Your task to perform on an android device: Add "usb-c to usb-b" to the cart on target.com Image 0: 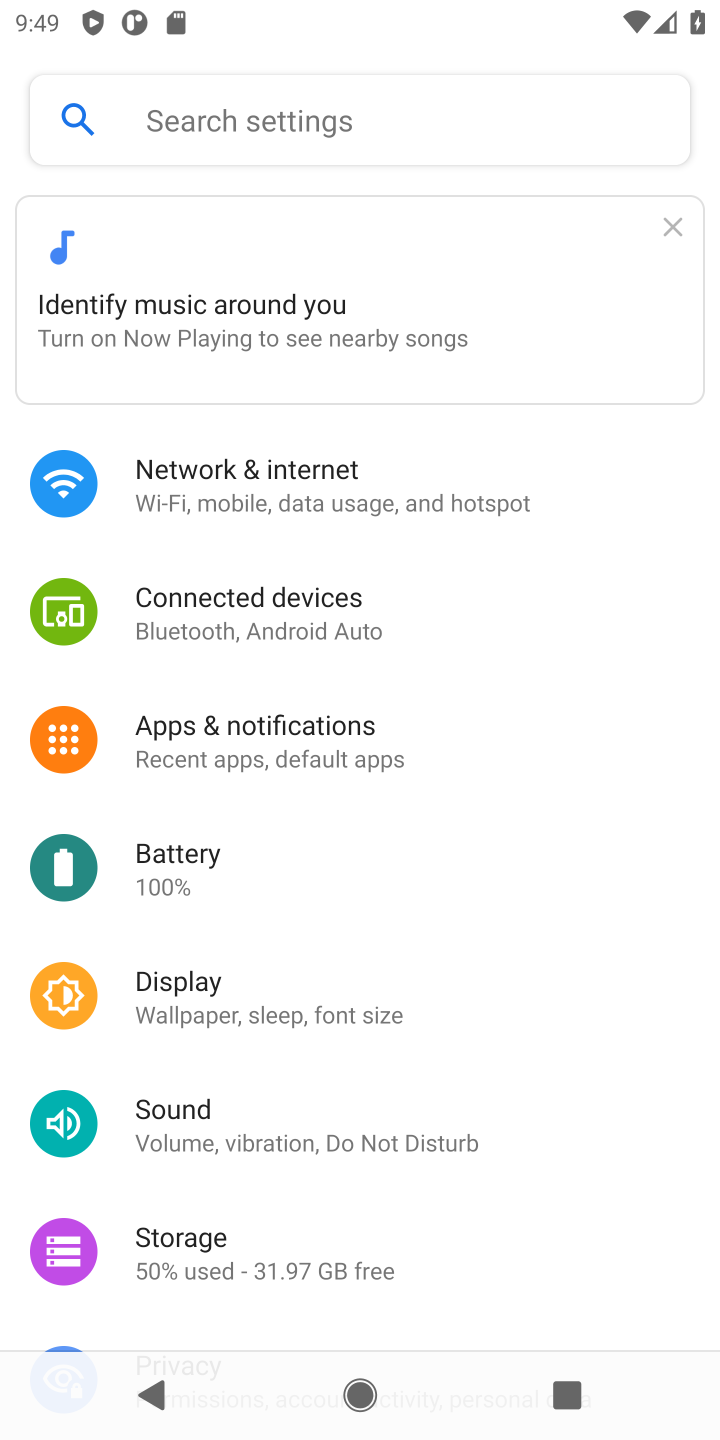
Step 0: press home button
Your task to perform on an android device: Add "usb-c to usb-b" to the cart on target.com Image 1: 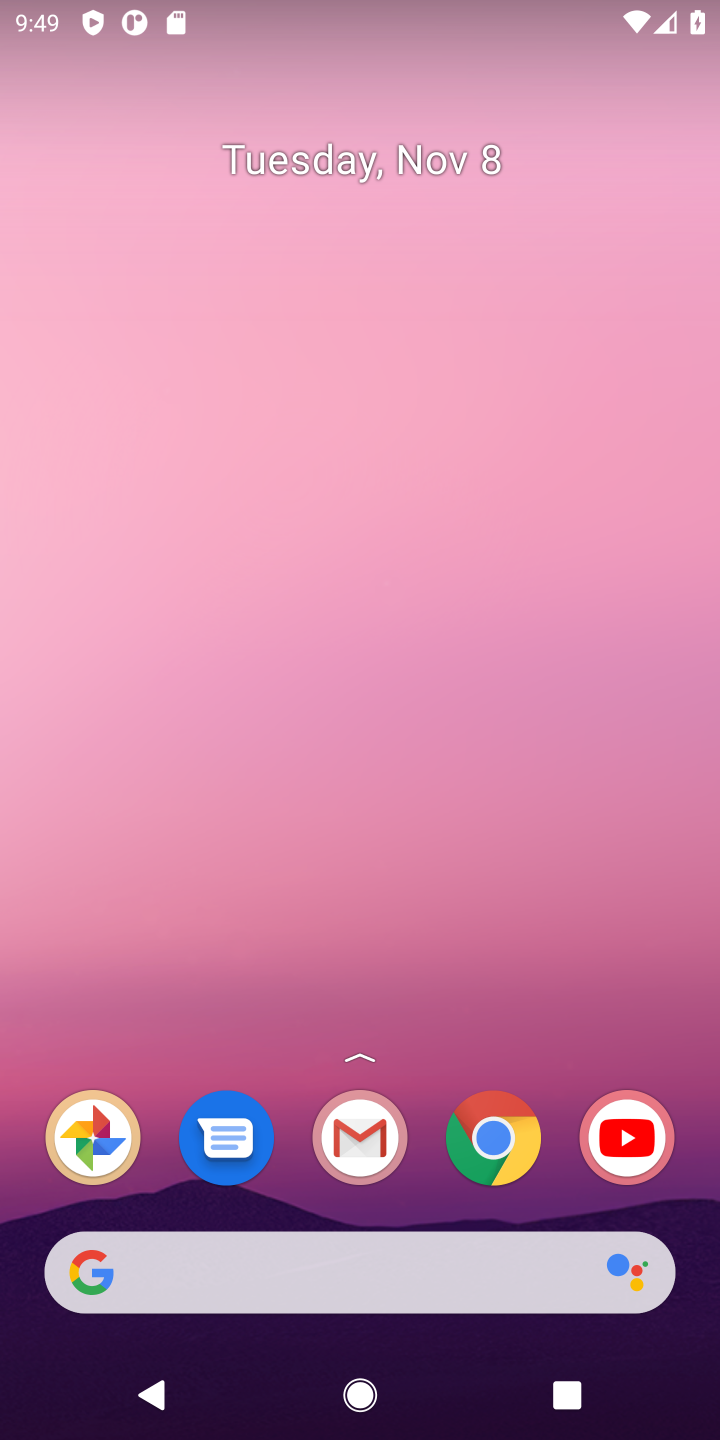
Step 1: click (502, 1145)
Your task to perform on an android device: Add "usb-c to usb-b" to the cart on target.com Image 2: 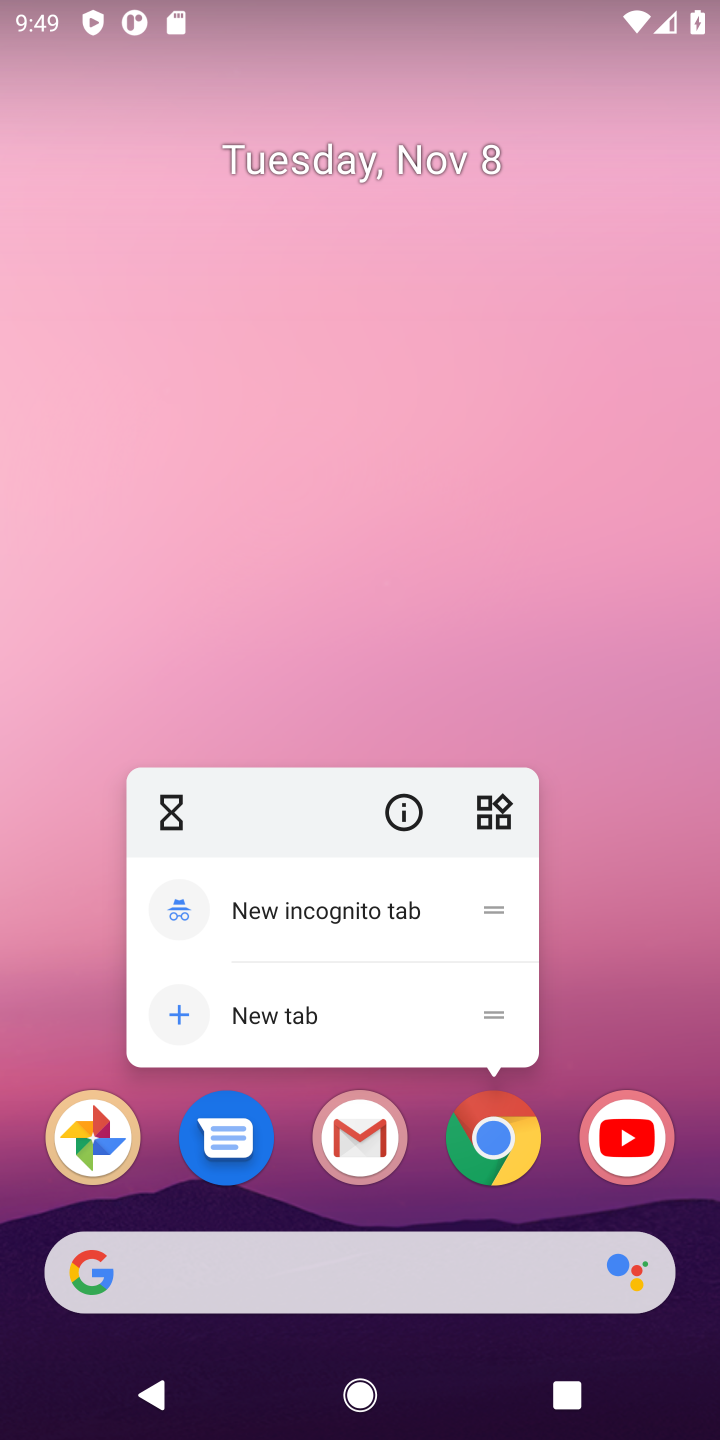
Step 2: click (500, 1152)
Your task to perform on an android device: Add "usb-c to usb-b" to the cart on target.com Image 3: 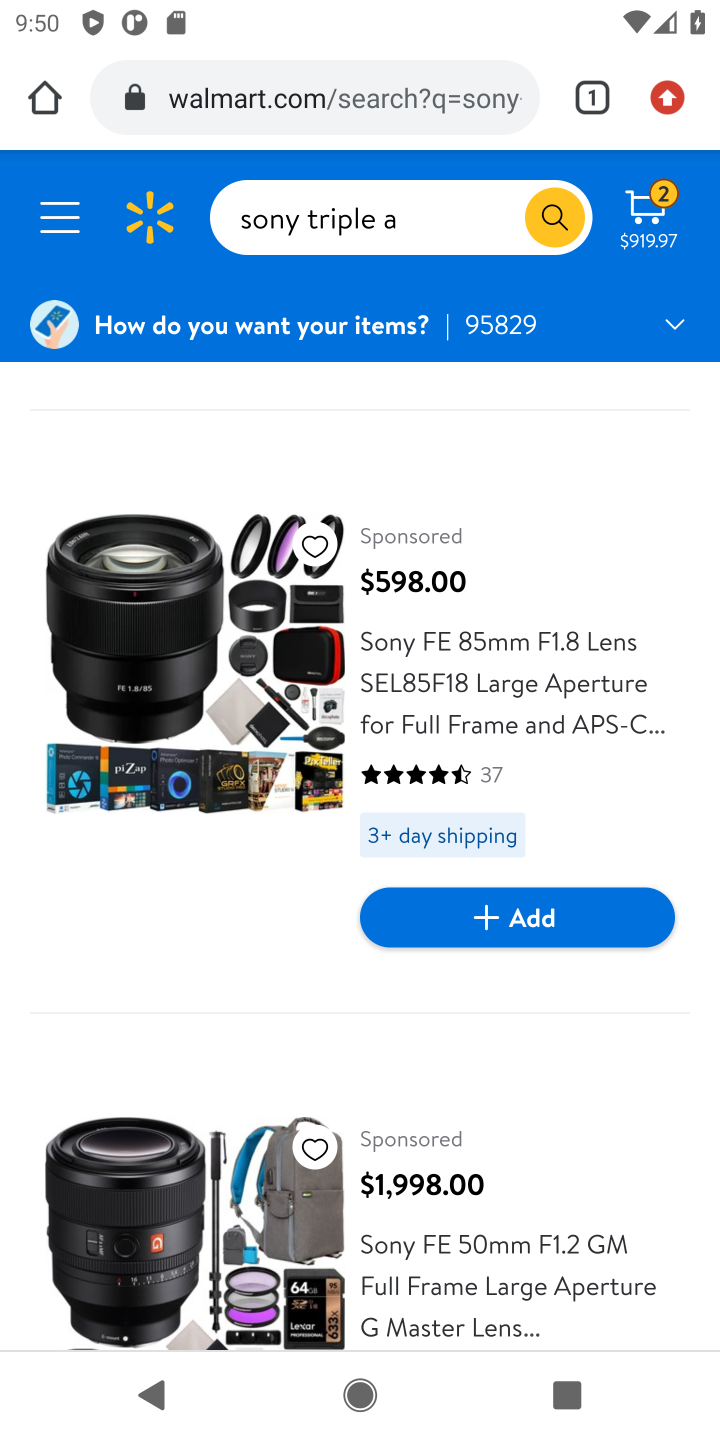
Step 3: click (381, 77)
Your task to perform on an android device: Add "usb-c to usb-b" to the cart on target.com Image 4: 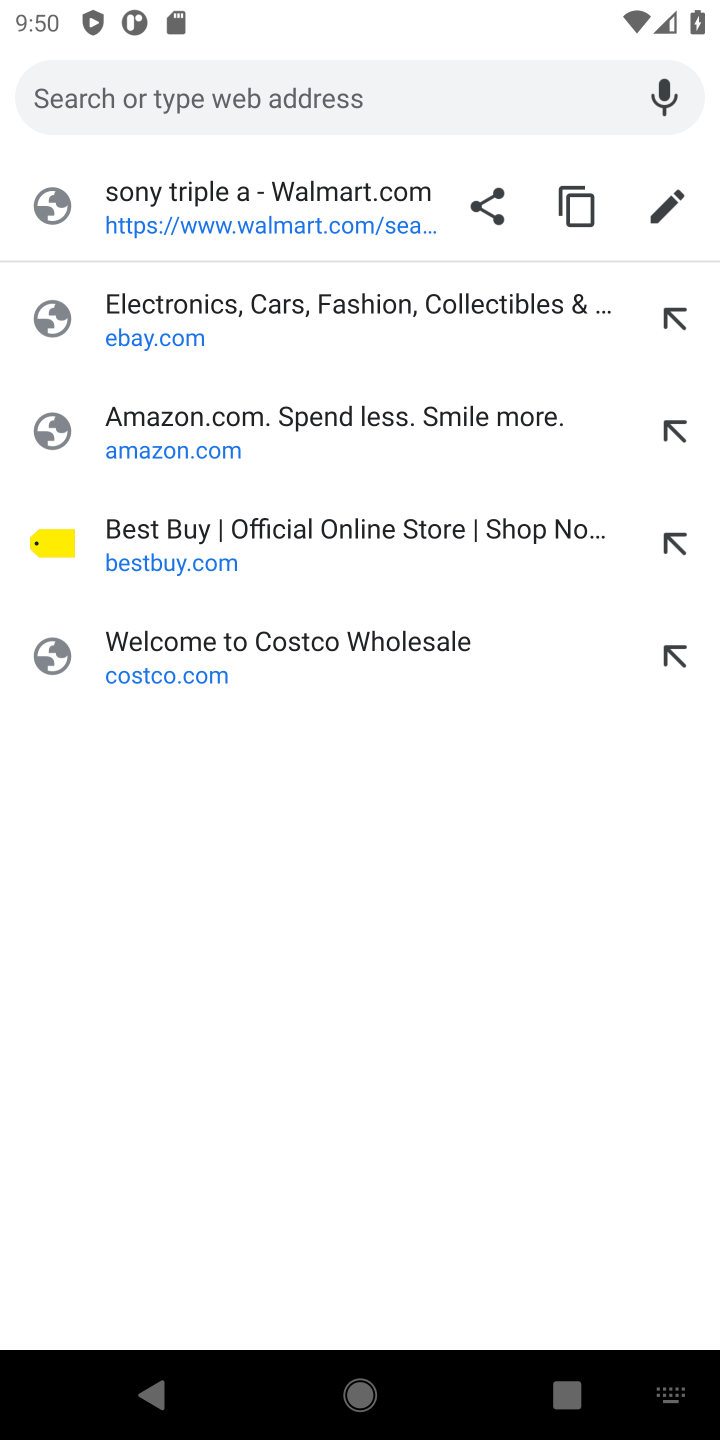
Step 4: type "target.com"
Your task to perform on an android device: Add "usb-c to usb-b" to the cart on target.com Image 5: 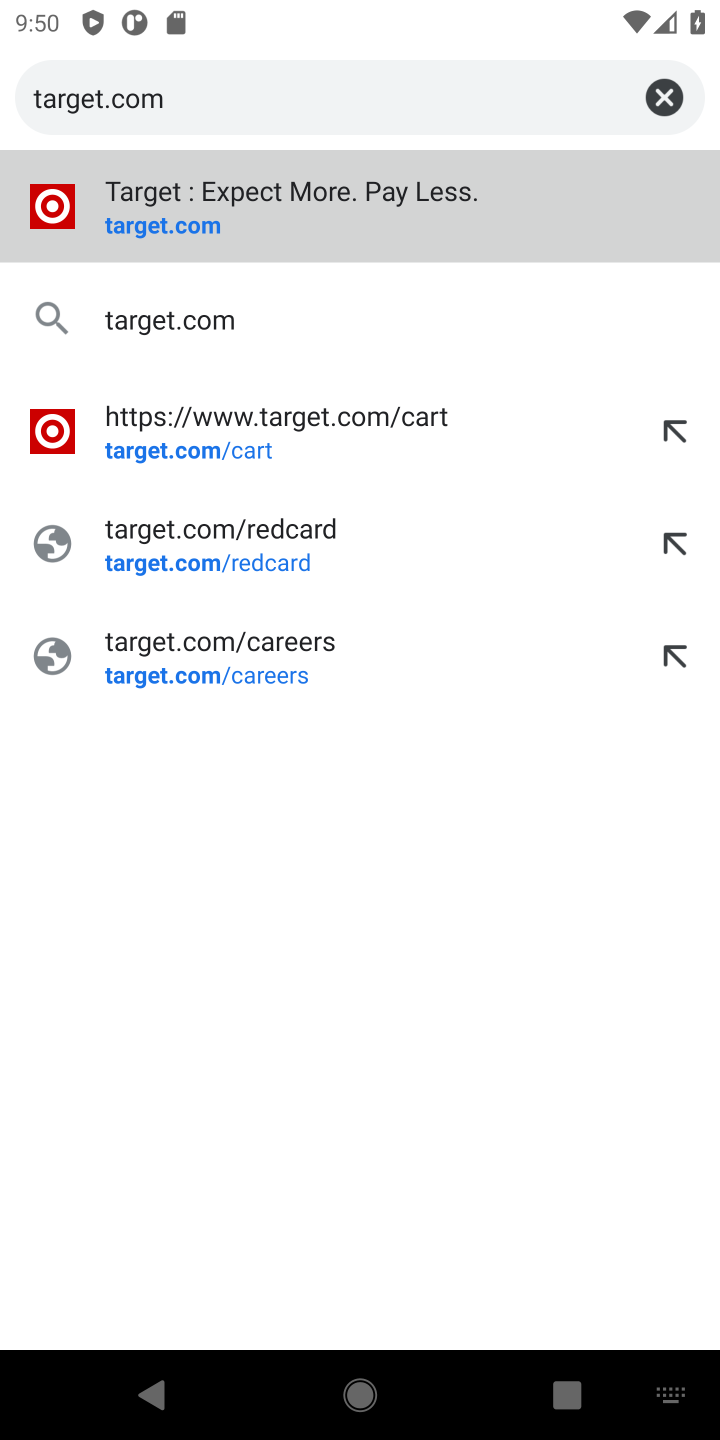
Step 5: press enter
Your task to perform on an android device: Add "usb-c to usb-b" to the cart on target.com Image 6: 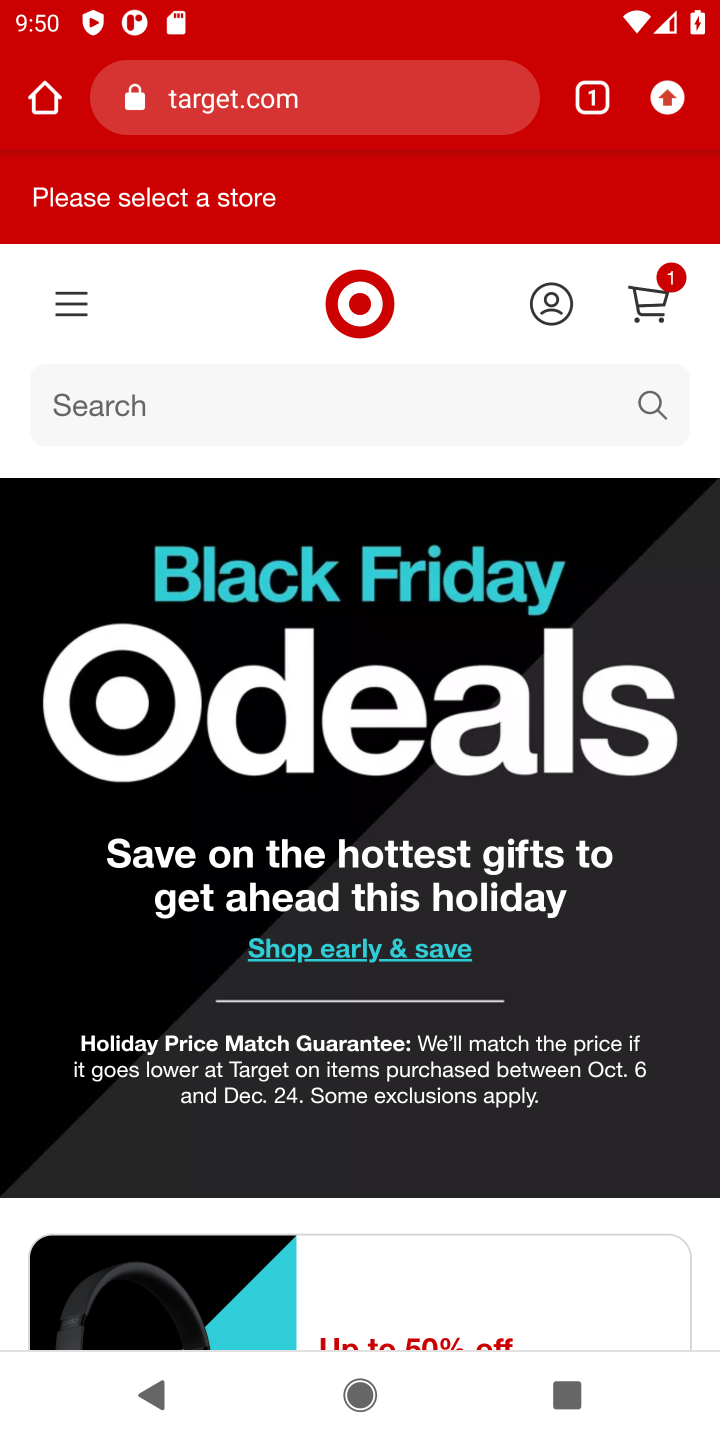
Step 6: click (255, 391)
Your task to perform on an android device: Add "usb-c to usb-b" to the cart on target.com Image 7: 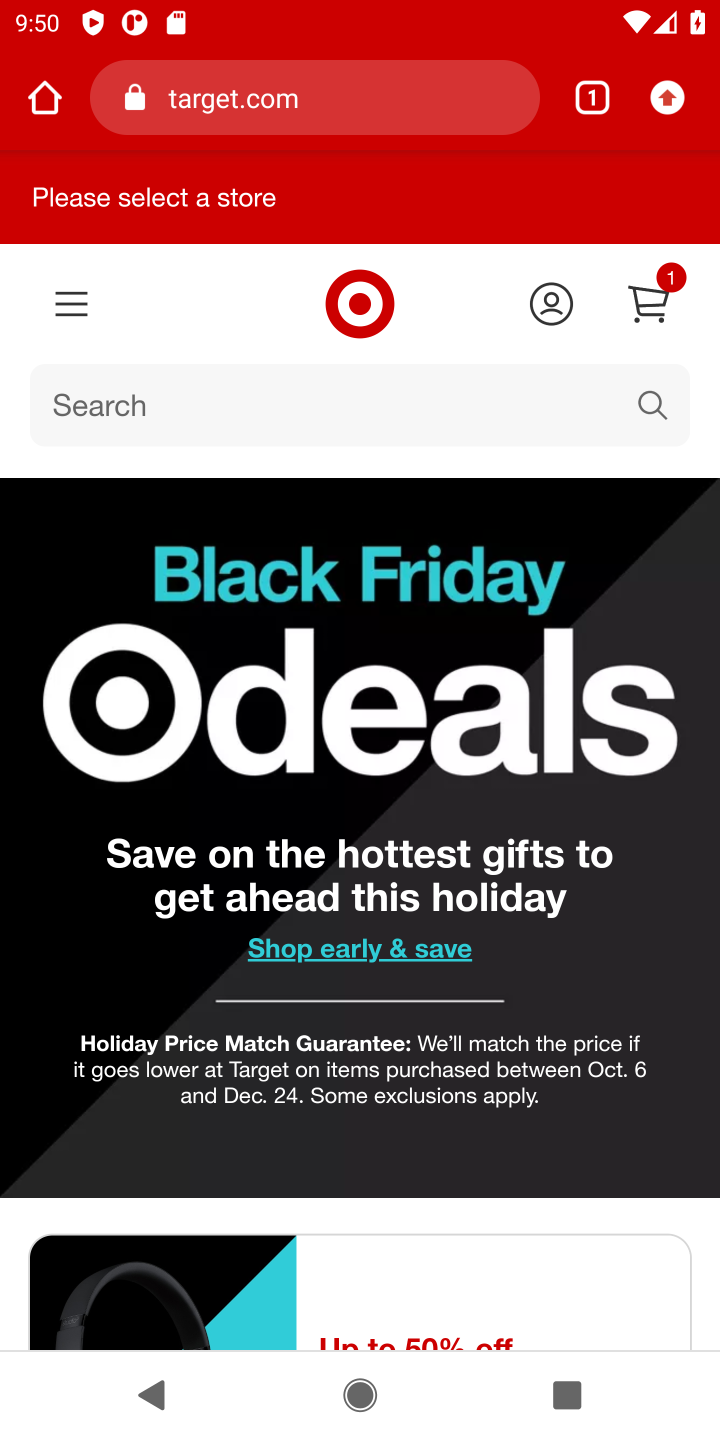
Step 7: click (90, 396)
Your task to perform on an android device: Add "usb-c to usb-b" to the cart on target.com Image 8: 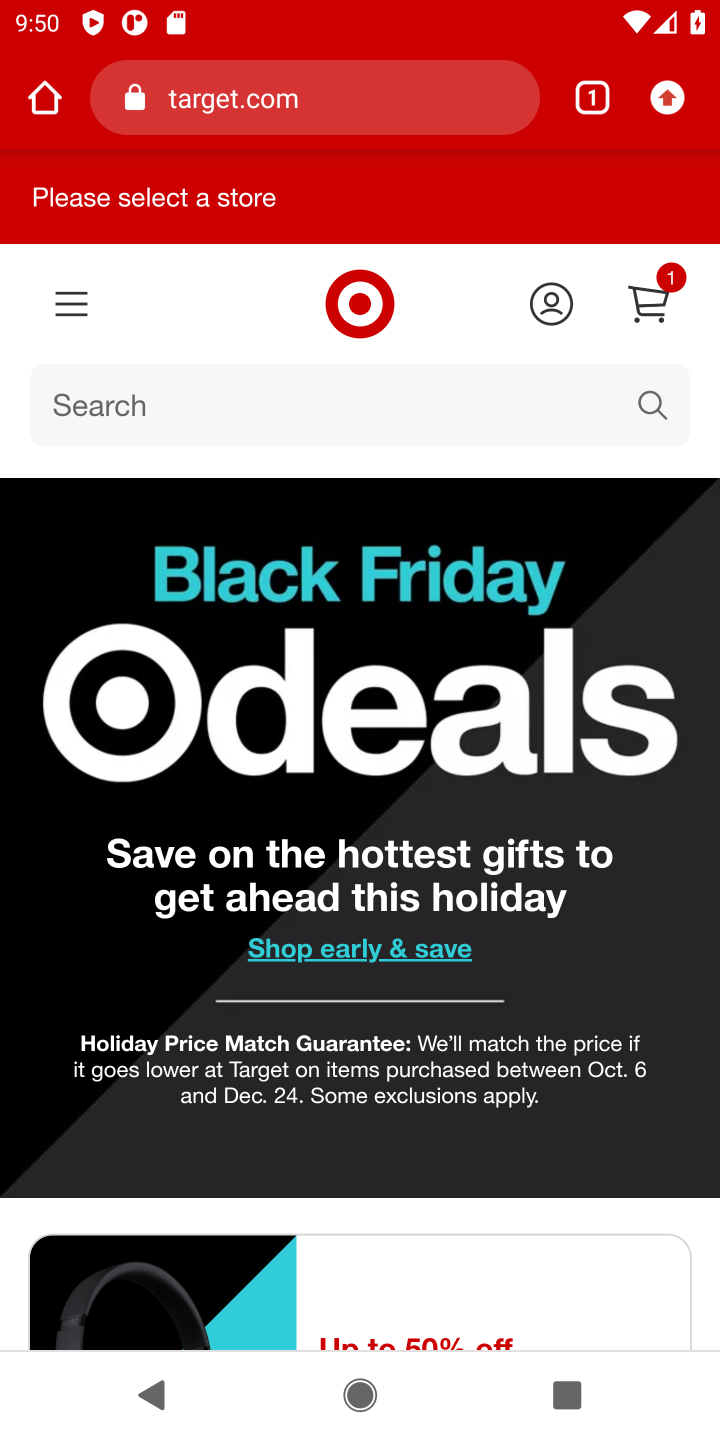
Step 8: click (469, 386)
Your task to perform on an android device: Add "usb-c to usb-b" to the cart on target.com Image 9: 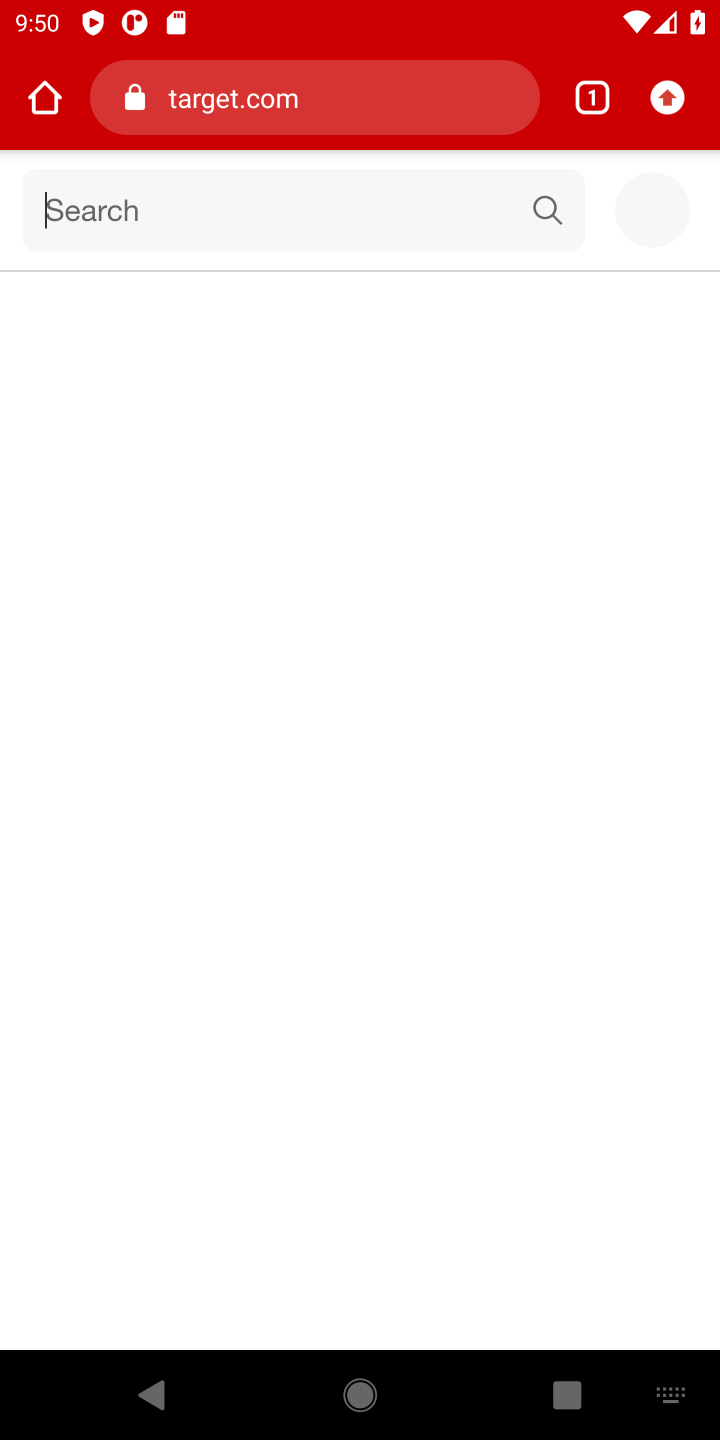
Step 9: click (497, 393)
Your task to perform on an android device: Add "usb-c to usb-b" to the cart on target.com Image 10: 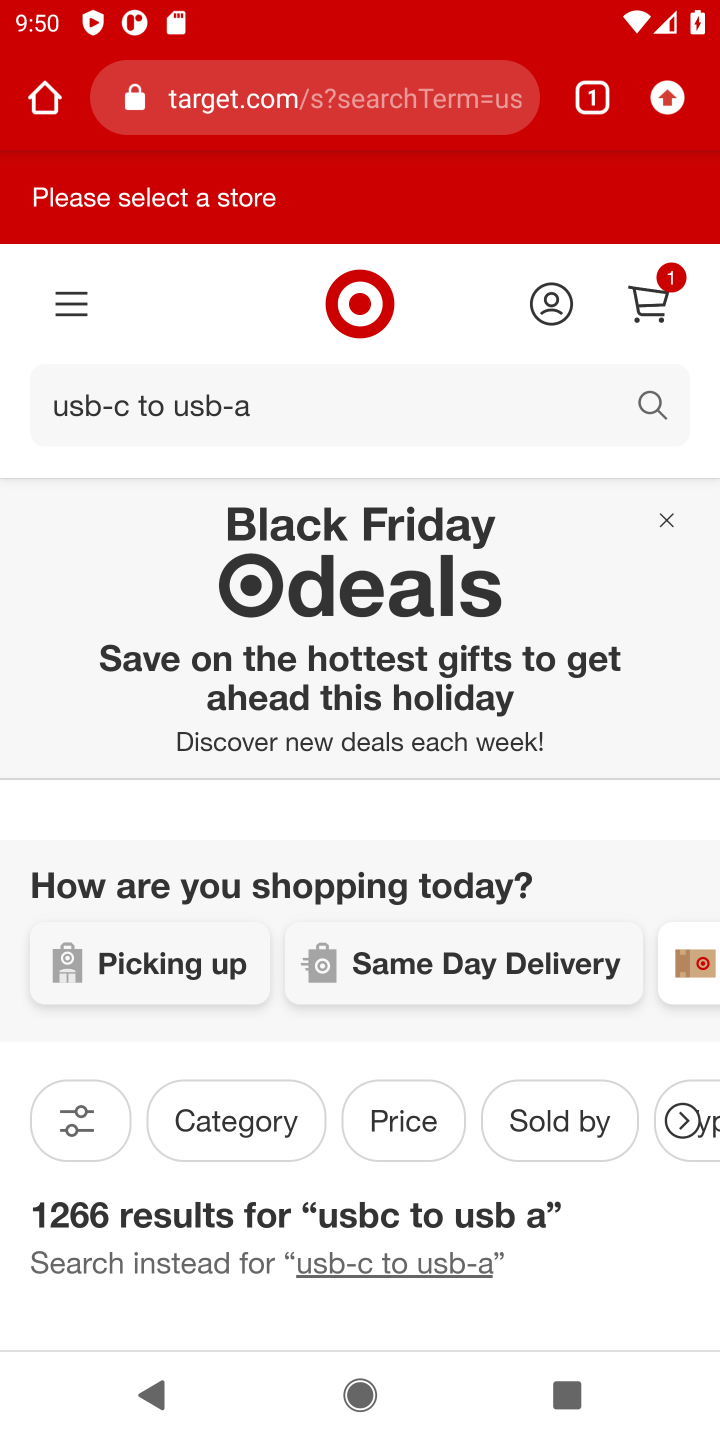
Step 10: click (299, 403)
Your task to perform on an android device: Add "usb-c to usb-b" to the cart on target.com Image 11: 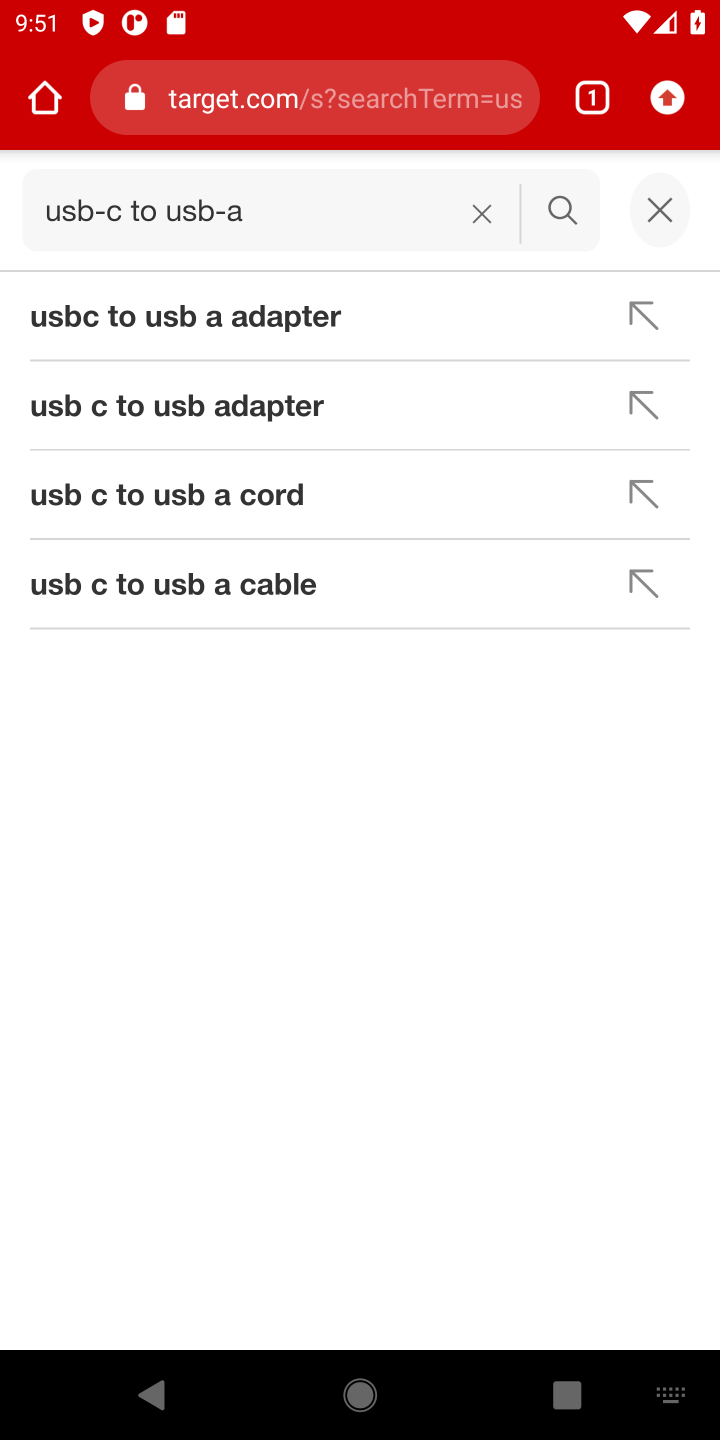
Step 11: click (482, 197)
Your task to perform on an android device: Add "usb-c to usb-b" to the cart on target.com Image 12: 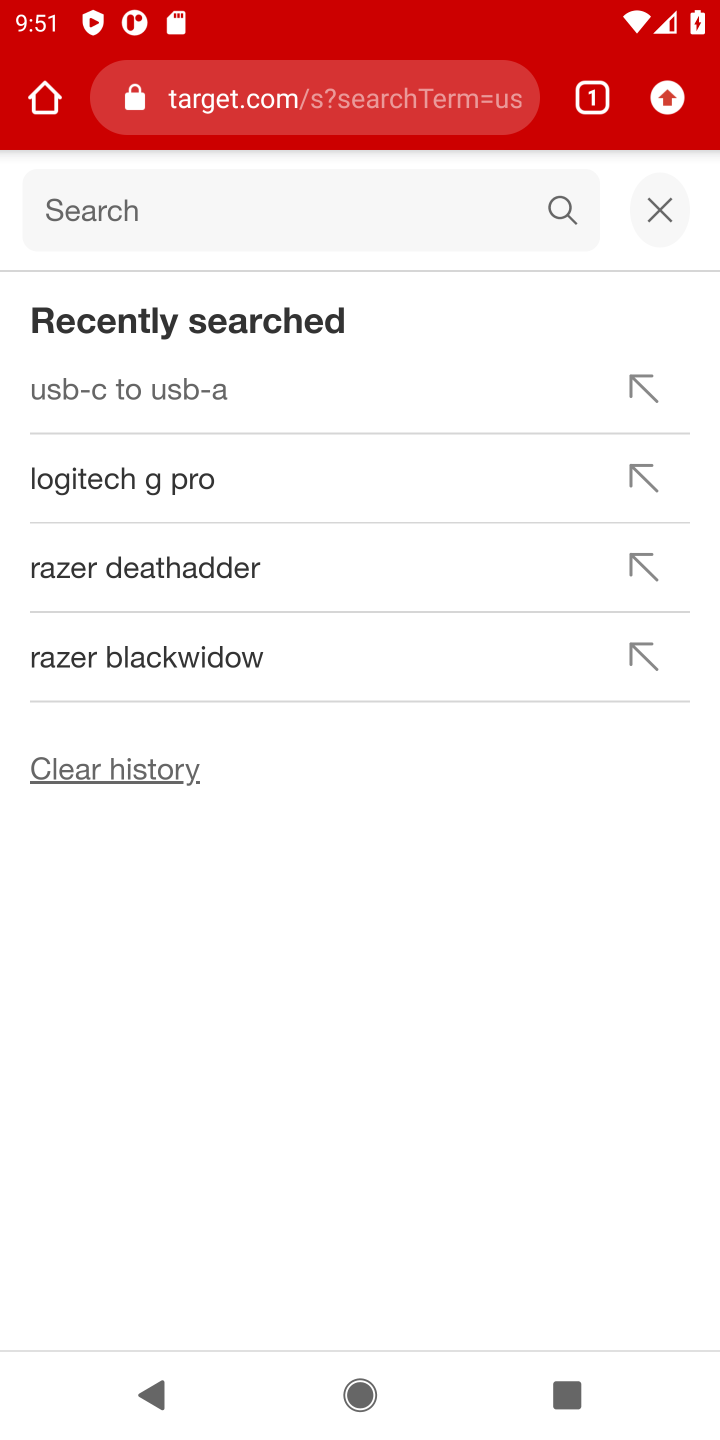
Step 12: click (225, 210)
Your task to perform on an android device: Add "usb-c to usb-b" to the cart on target.com Image 13: 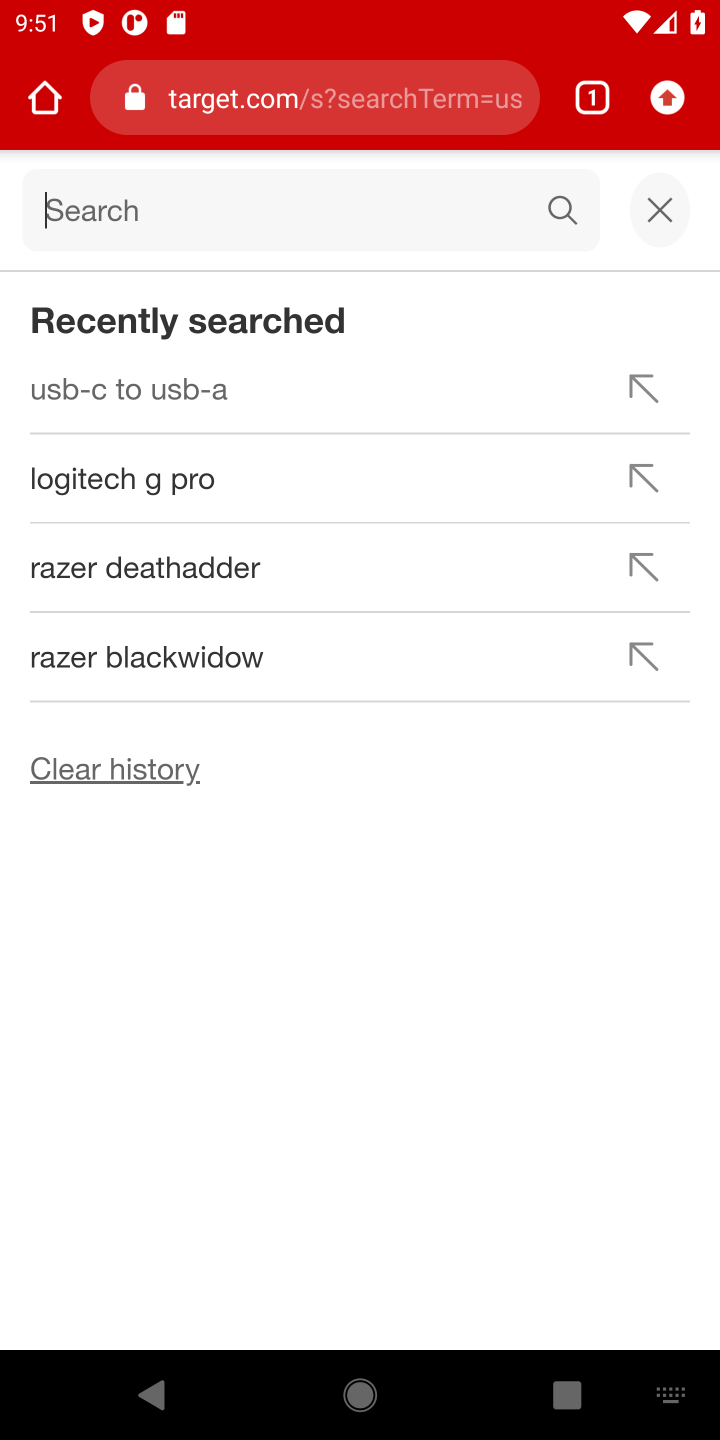
Step 13: type "usb-c to usb-b"
Your task to perform on an android device: Add "usb-c to usb-b" to the cart on target.com Image 14: 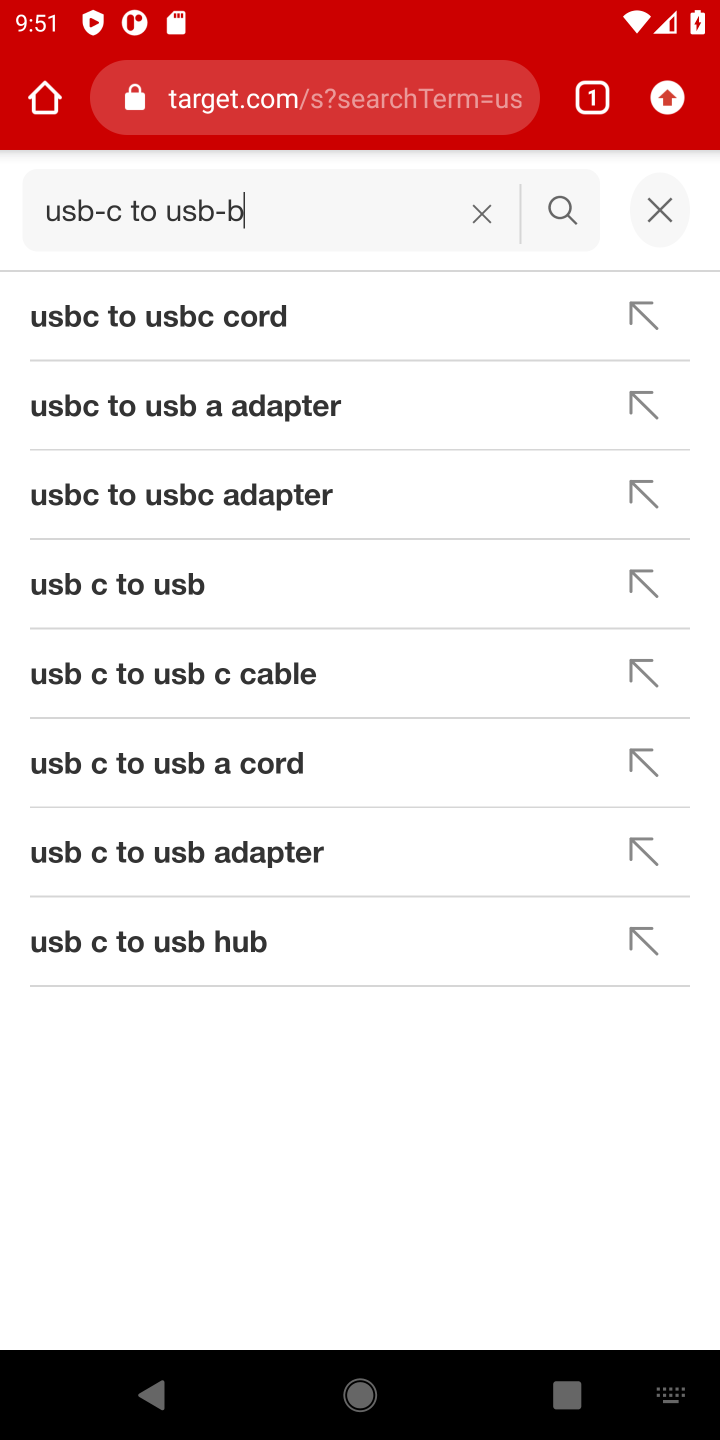
Step 14: press enter
Your task to perform on an android device: Add "usb-c to usb-b" to the cart on target.com Image 15: 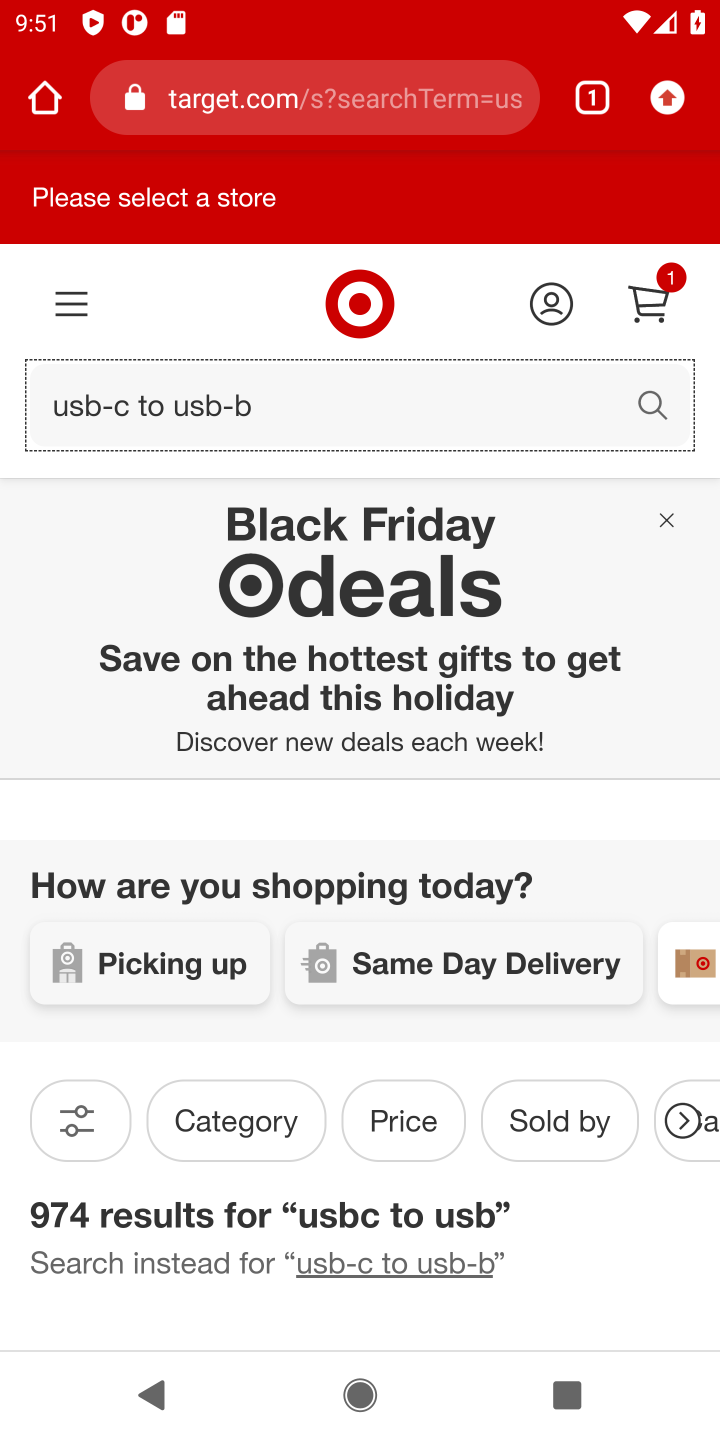
Step 15: drag from (311, 1163) to (551, 329)
Your task to perform on an android device: Add "usb-c to usb-b" to the cart on target.com Image 16: 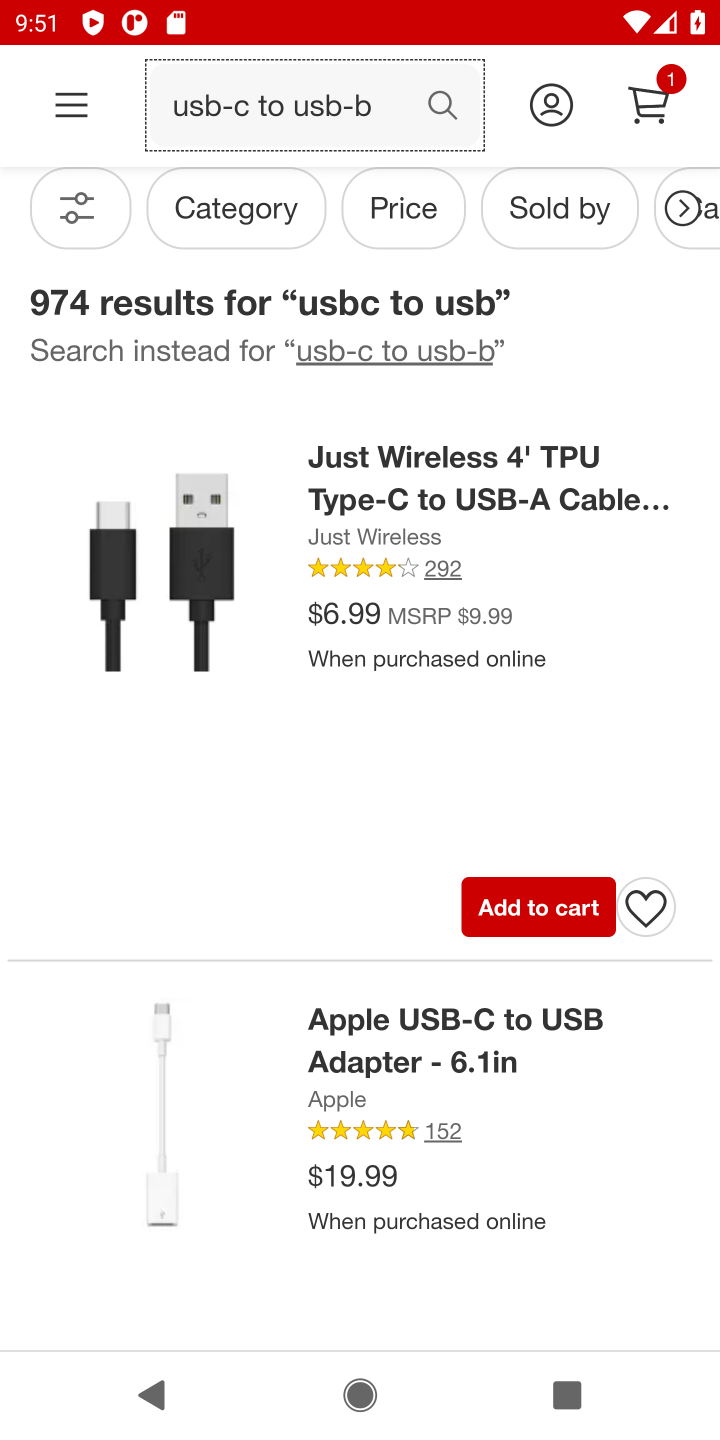
Step 16: click (556, 898)
Your task to perform on an android device: Add "usb-c to usb-b" to the cart on target.com Image 17: 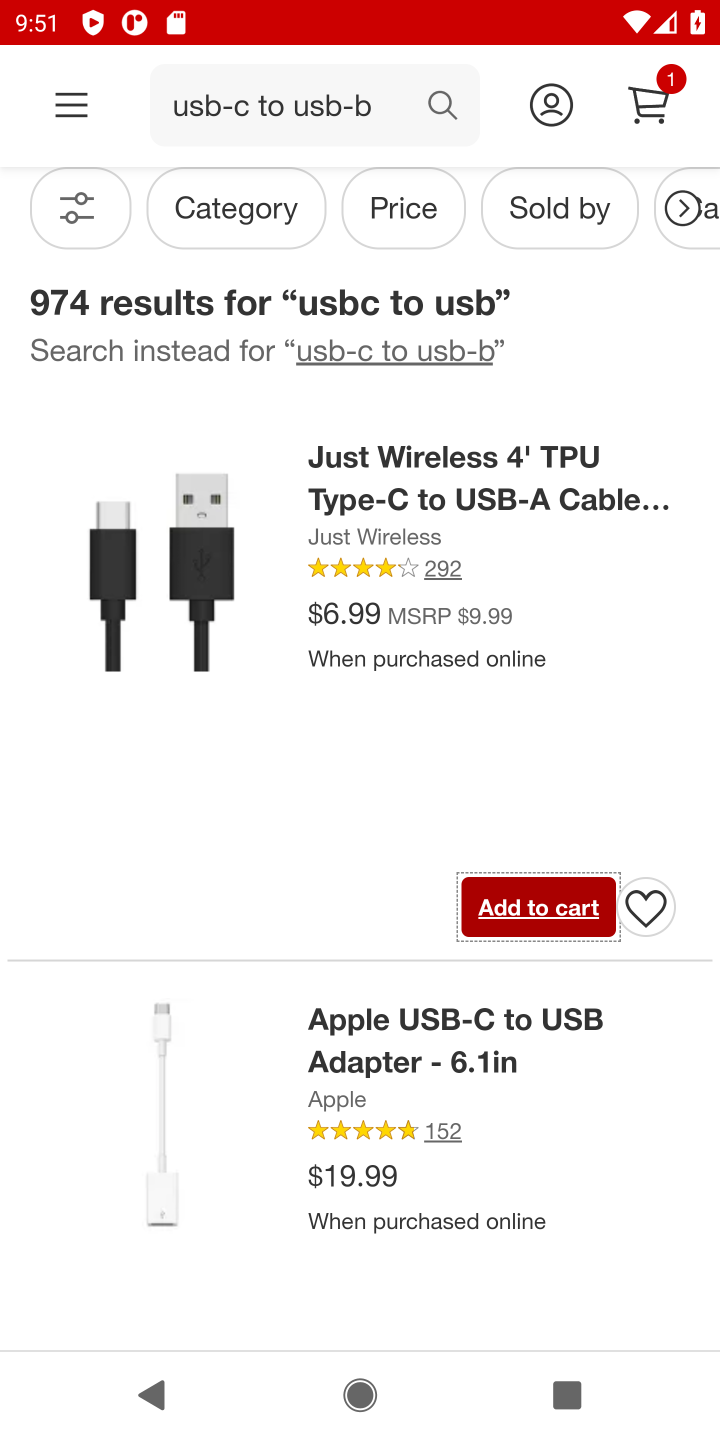
Step 17: click (527, 901)
Your task to perform on an android device: Add "usb-c to usb-b" to the cart on target.com Image 18: 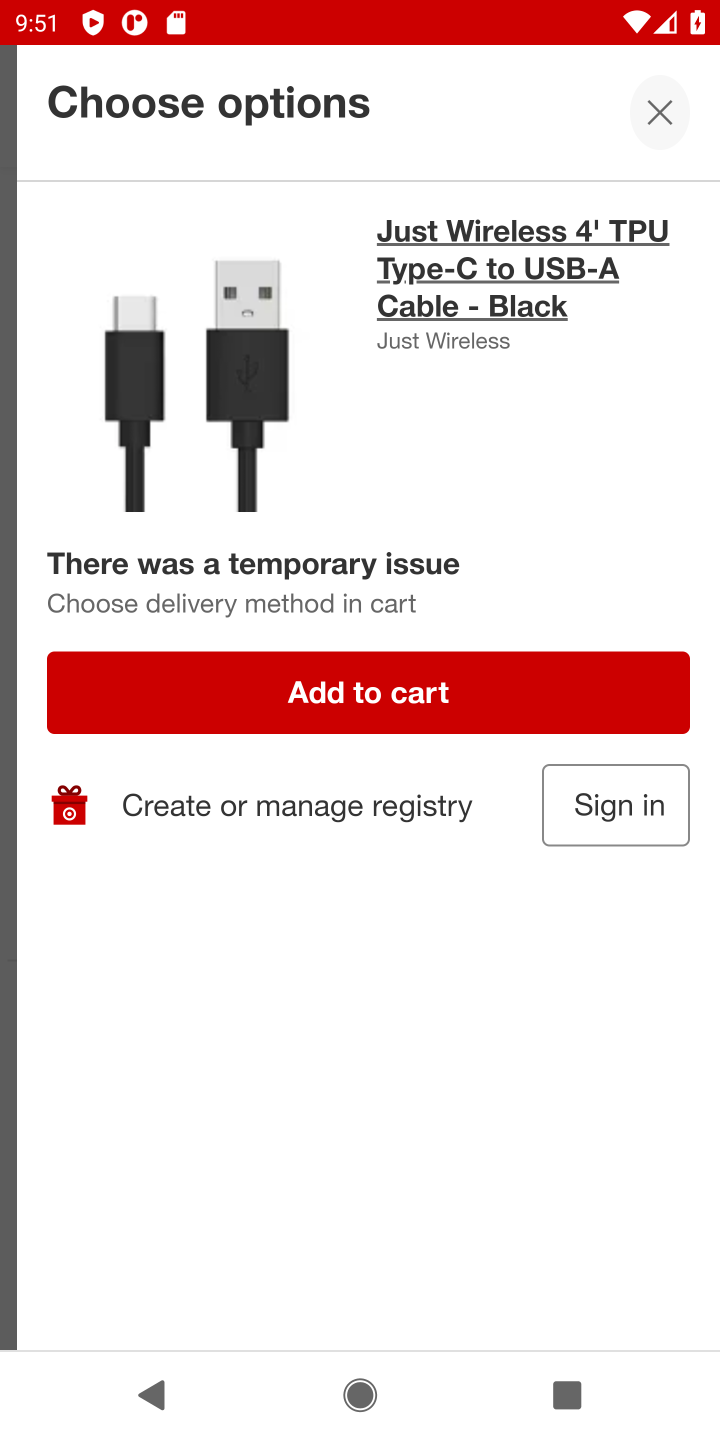
Step 18: click (360, 693)
Your task to perform on an android device: Add "usb-c to usb-b" to the cart on target.com Image 19: 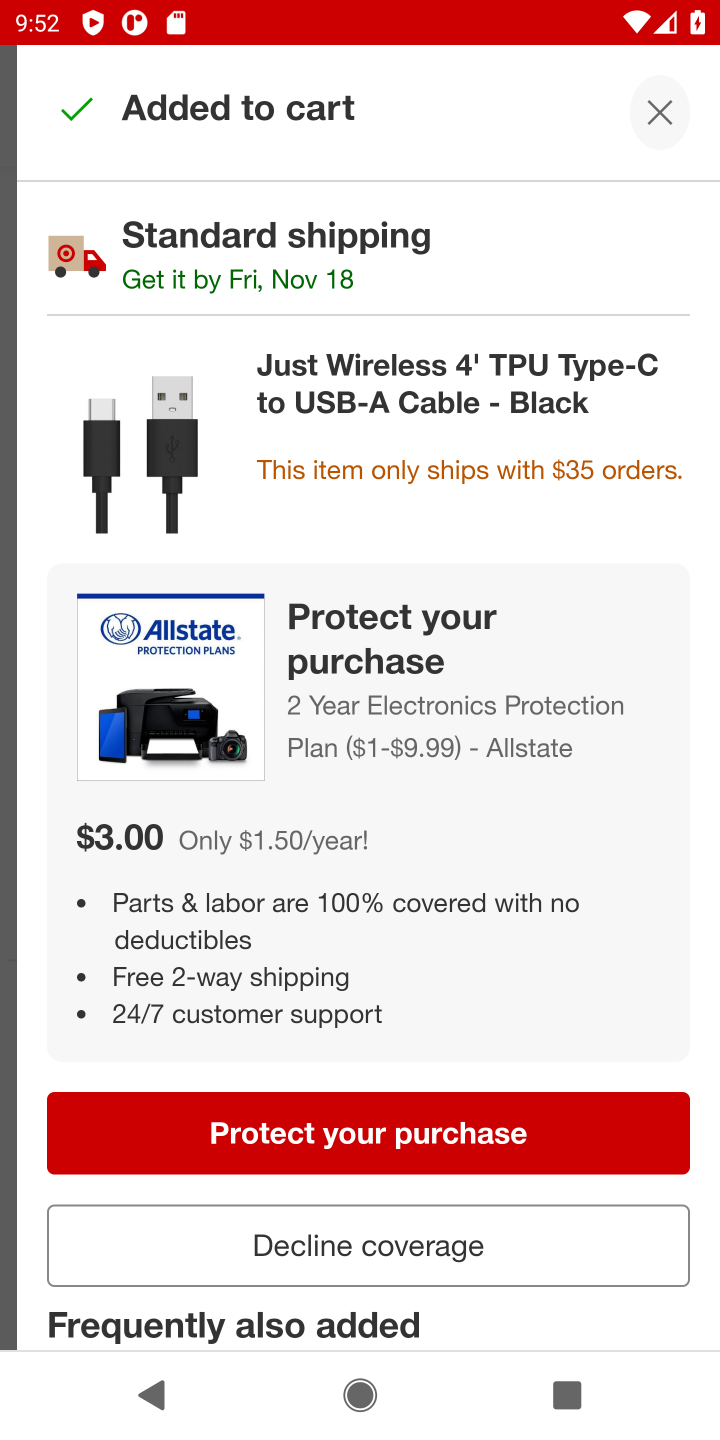
Step 19: click (390, 1228)
Your task to perform on an android device: Add "usb-c to usb-b" to the cart on target.com Image 20: 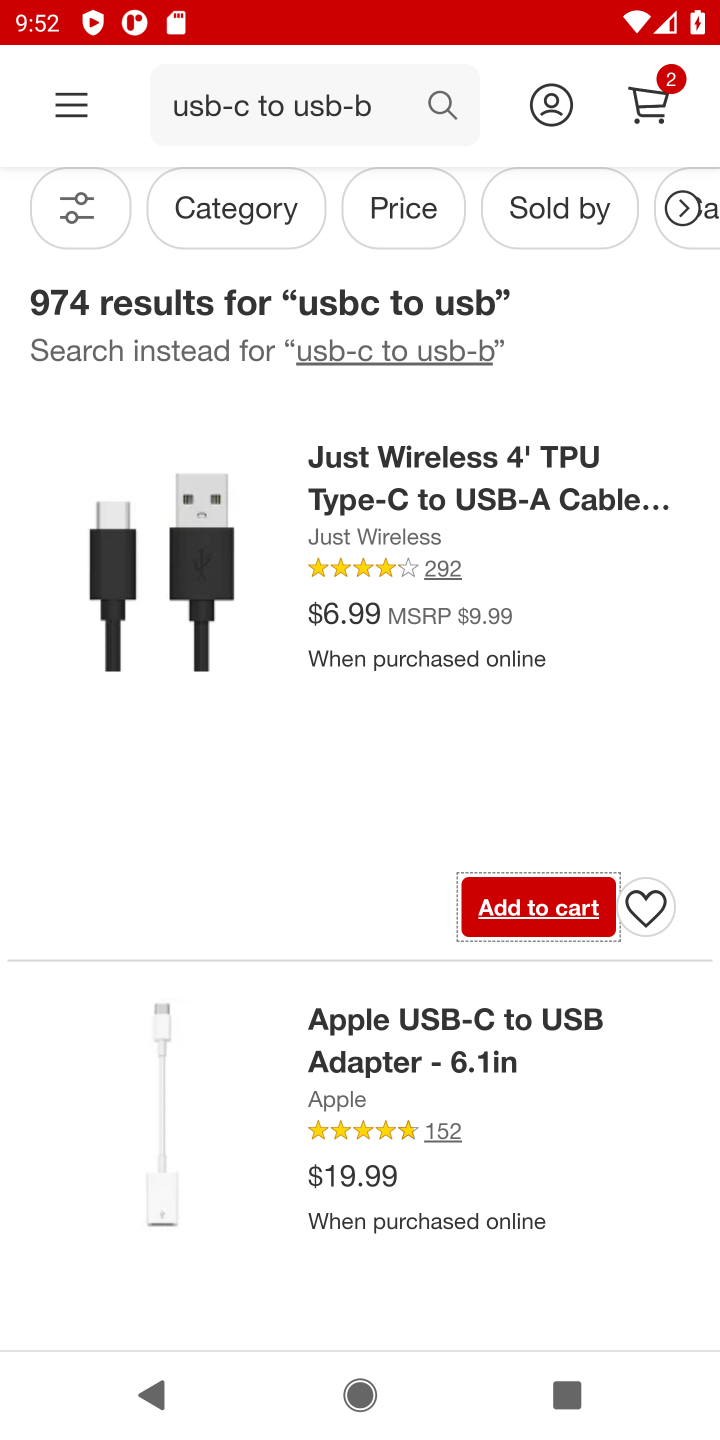
Step 20: click (655, 87)
Your task to perform on an android device: Add "usb-c to usb-b" to the cart on target.com Image 21: 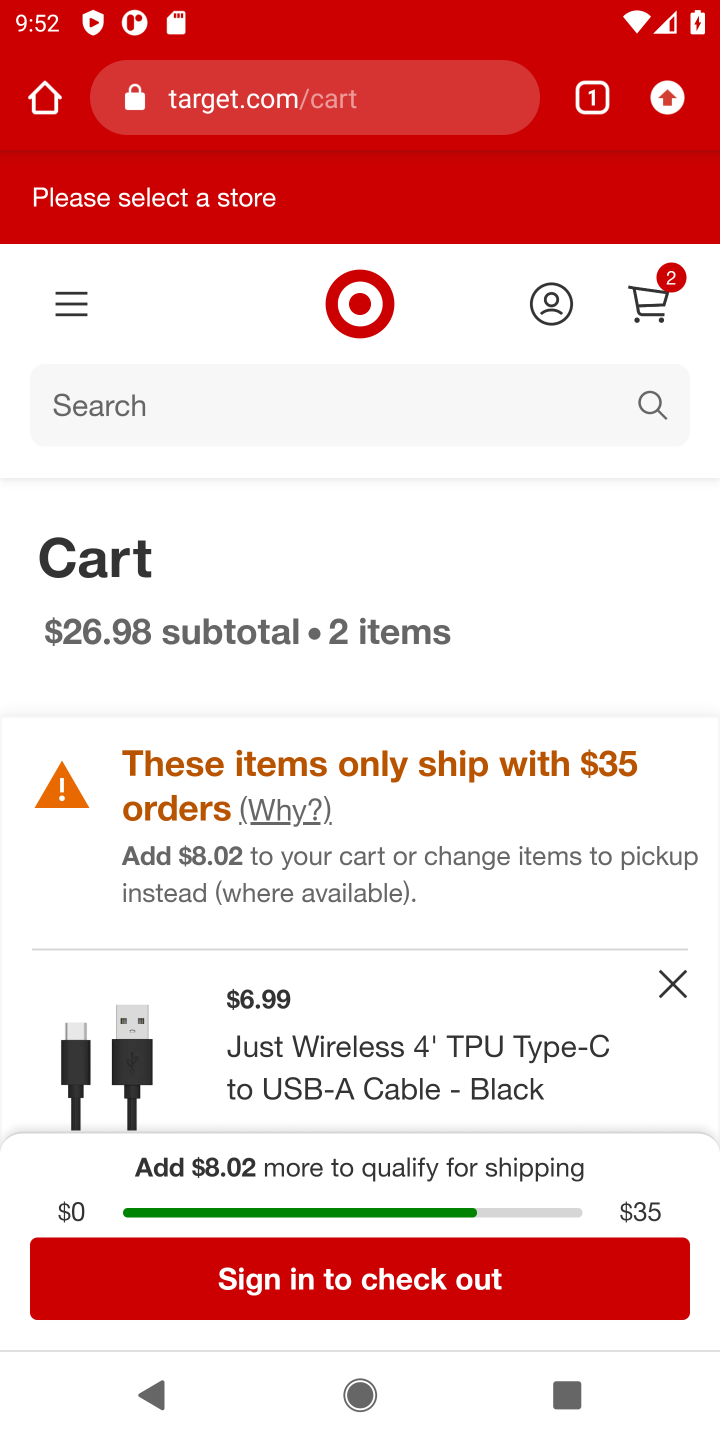
Step 21: drag from (388, 1048) to (604, 334)
Your task to perform on an android device: Add "usb-c to usb-b" to the cart on target.com Image 22: 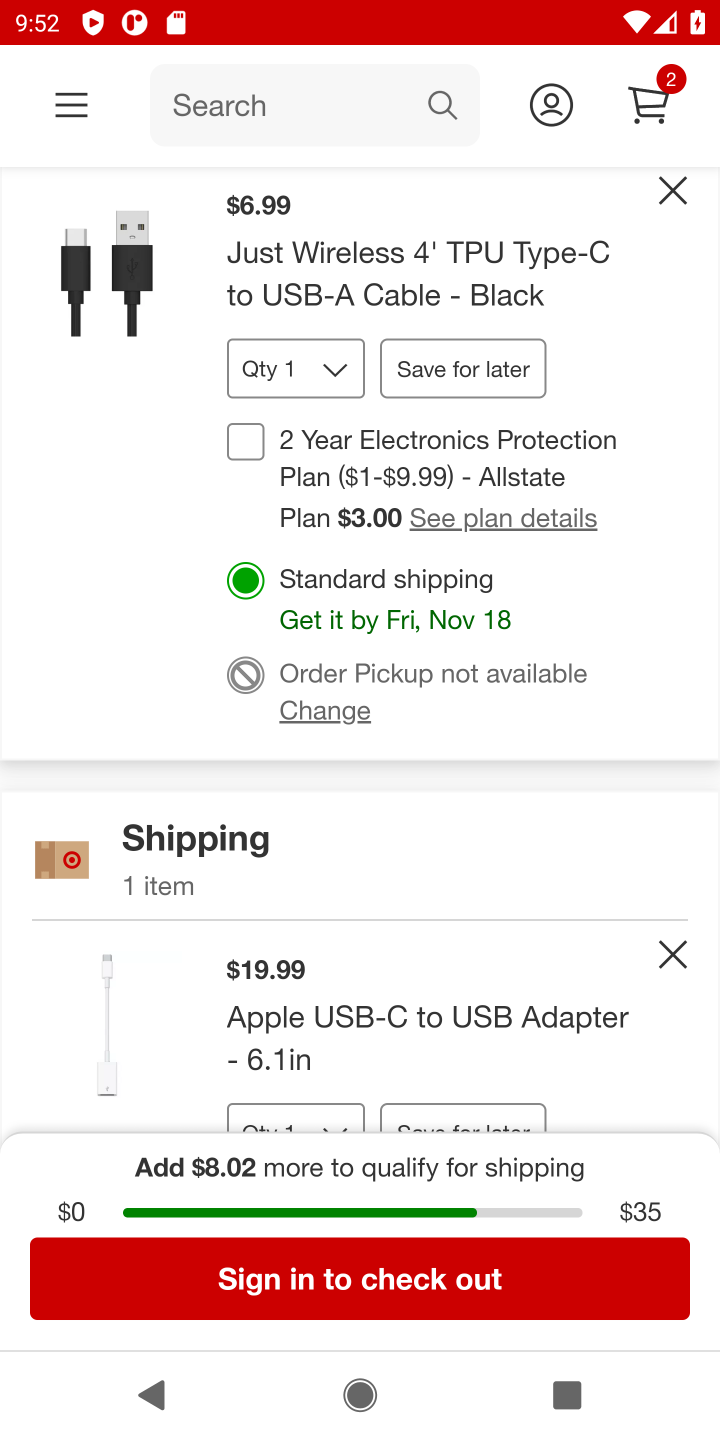
Step 22: drag from (465, 988) to (561, 120)
Your task to perform on an android device: Add "usb-c to usb-b" to the cart on target.com Image 23: 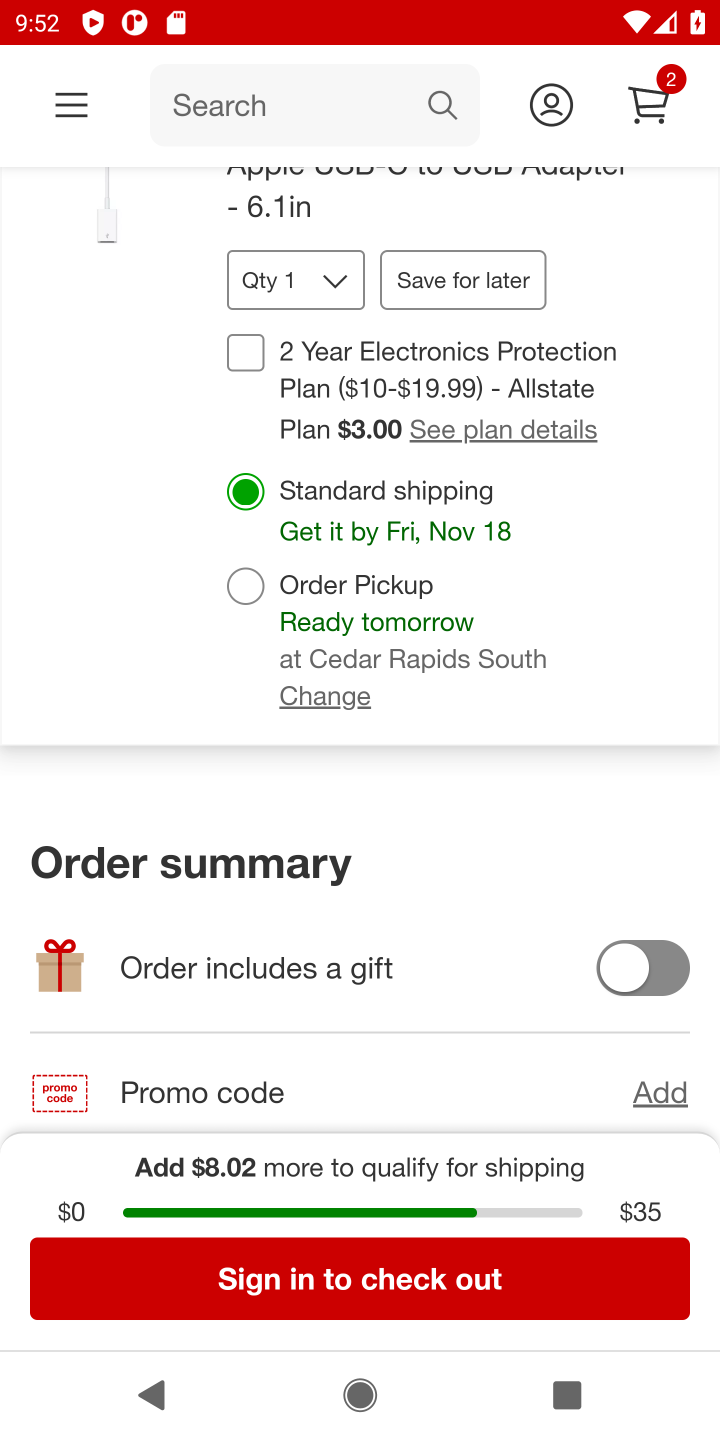
Step 23: drag from (625, 221) to (557, 975)
Your task to perform on an android device: Add "usb-c to usb-b" to the cart on target.com Image 24: 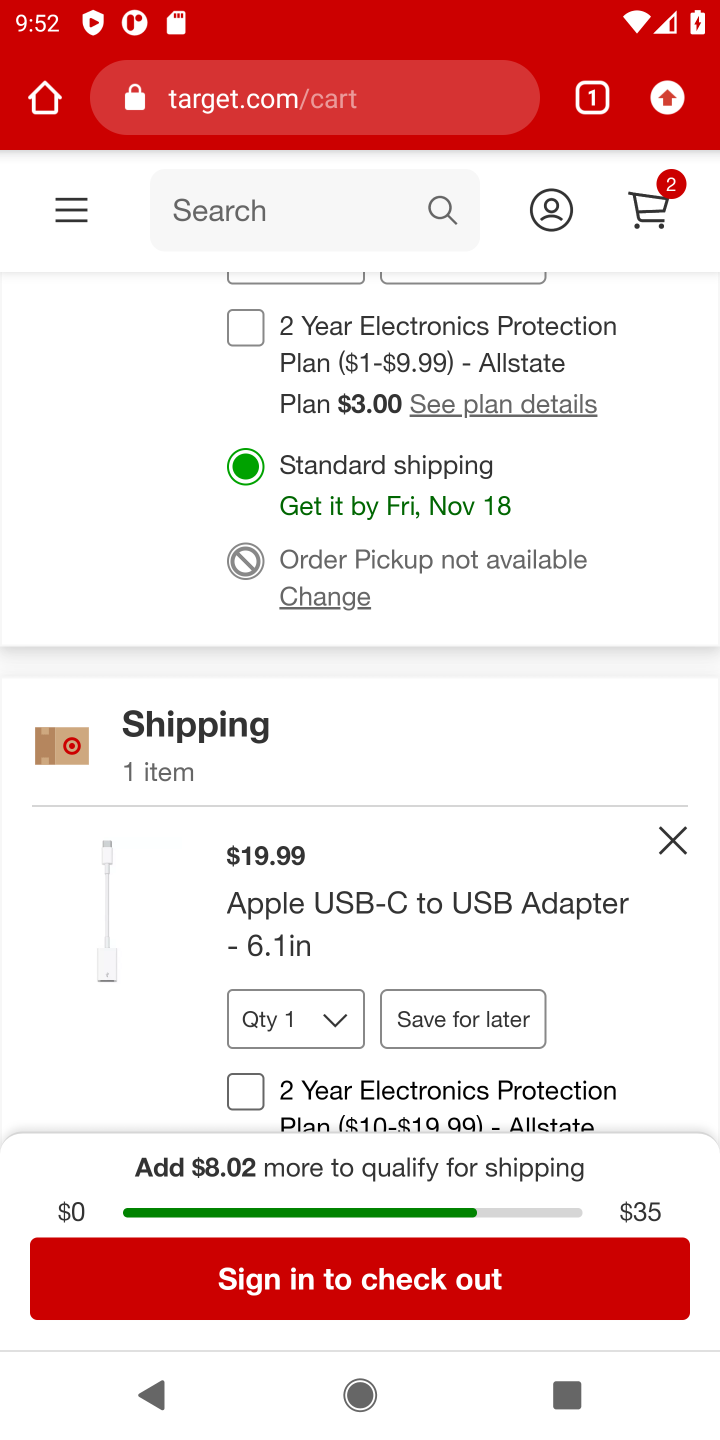
Step 24: click (665, 842)
Your task to perform on an android device: Add "usb-c to usb-b" to the cart on target.com Image 25: 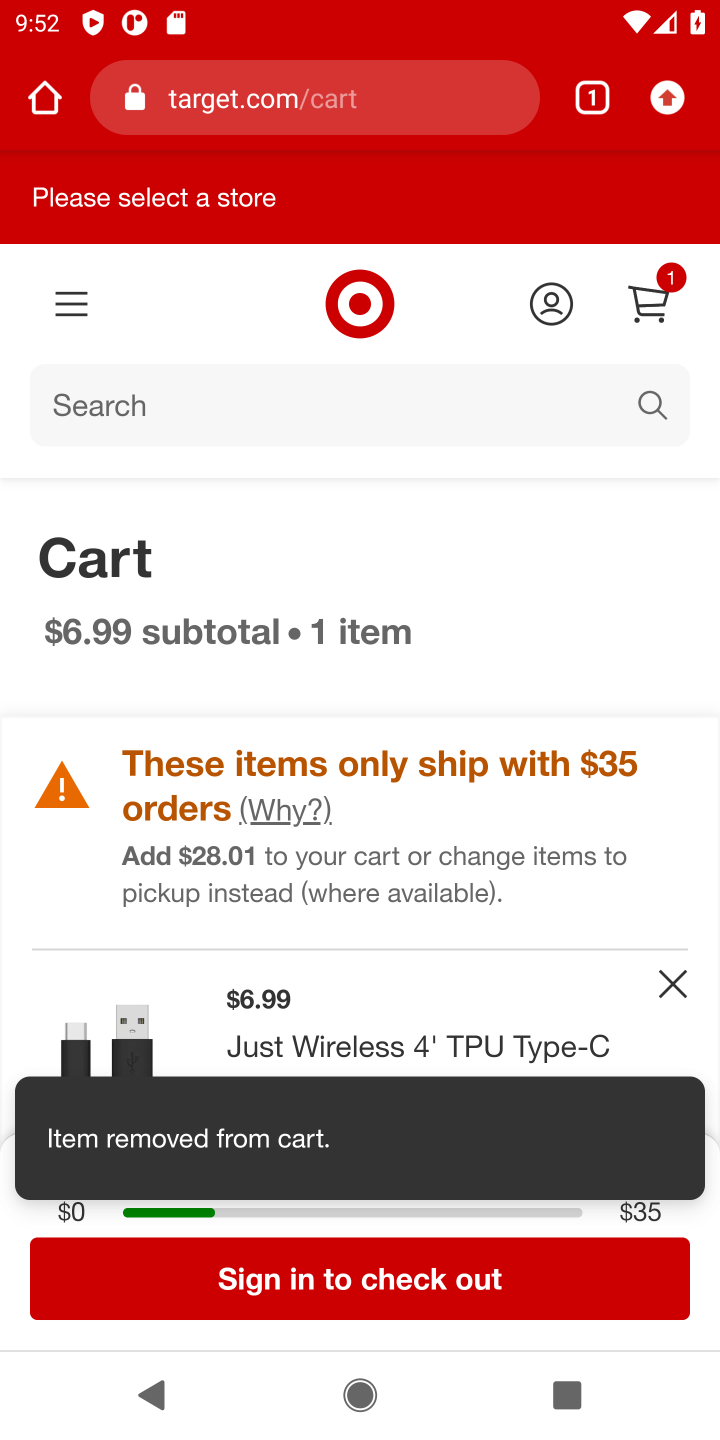
Step 25: task complete